Your task to perform on an android device: Go to Amazon Image 0: 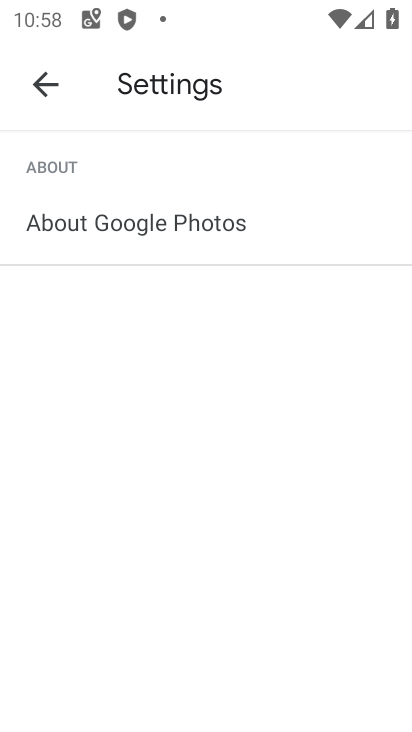
Step 0: press home button
Your task to perform on an android device: Go to Amazon Image 1: 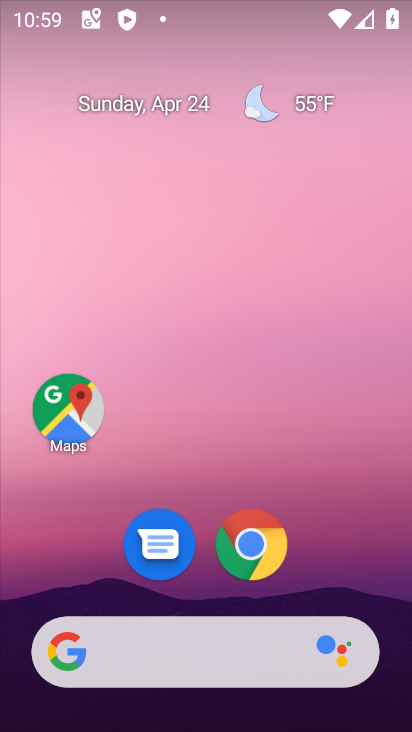
Step 1: click (254, 549)
Your task to perform on an android device: Go to Amazon Image 2: 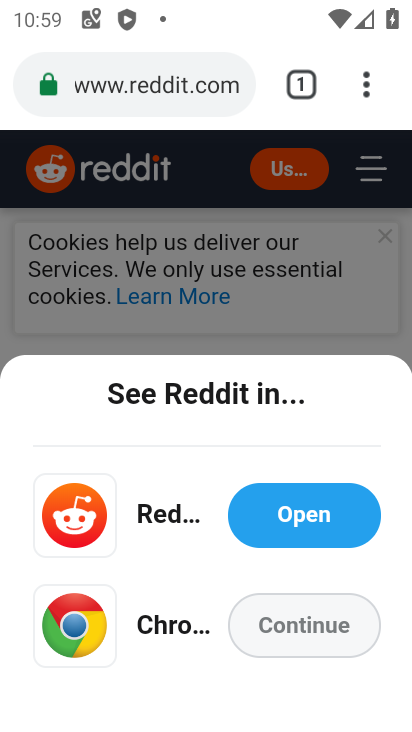
Step 2: click (299, 74)
Your task to perform on an android device: Go to Amazon Image 3: 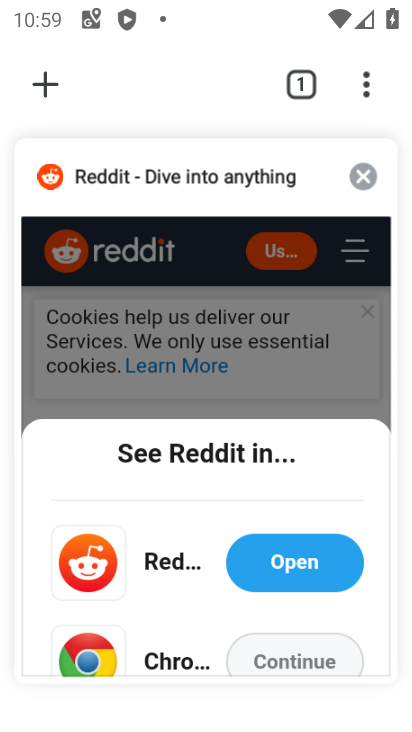
Step 3: click (43, 93)
Your task to perform on an android device: Go to Amazon Image 4: 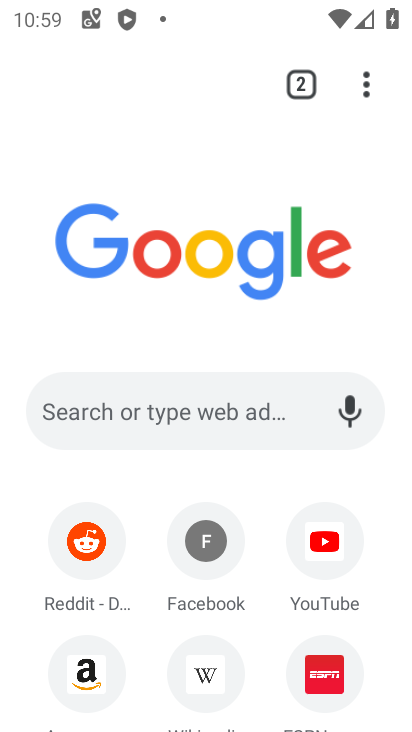
Step 4: click (106, 659)
Your task to perform on an android device: Go to Amazon Image 5: 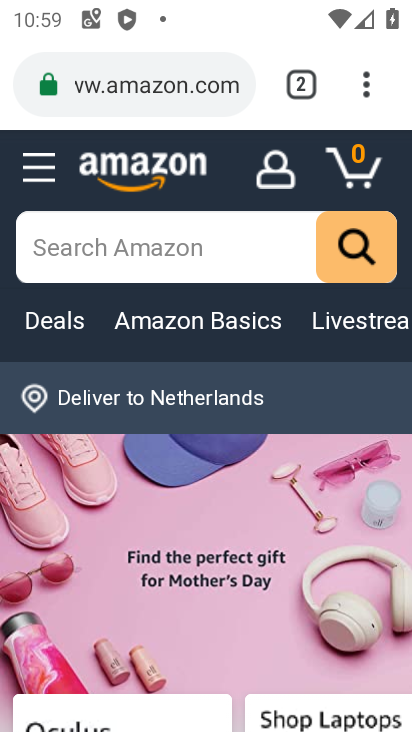
Step 5: task complete